Your task to perform on an android device: Open ESPN.com Image 0: 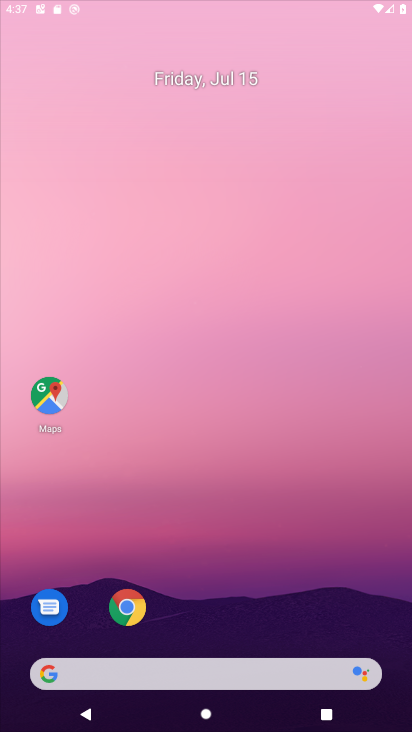
Step 0: press back button
Your task to perform on an android device: Open ESPN.com Image 1: 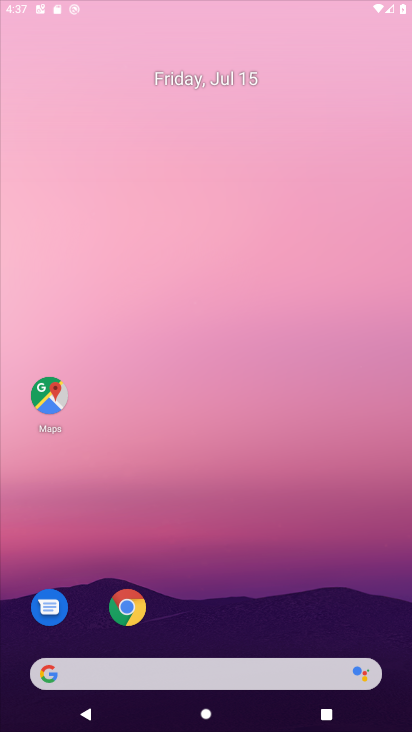
Step 1: click (132, 95)
Your task to perform on an android device: Open ESPN.com Image 2: 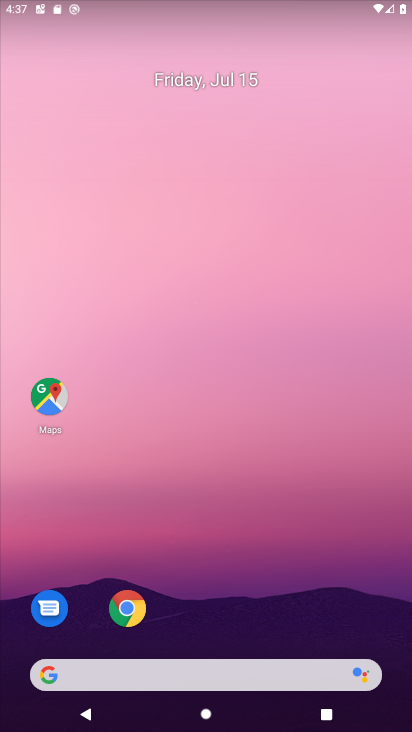
Step 2: drag from (202, 493) to (228, 51)
Your task to perform on an android device: Open ESPN.com Image 3: 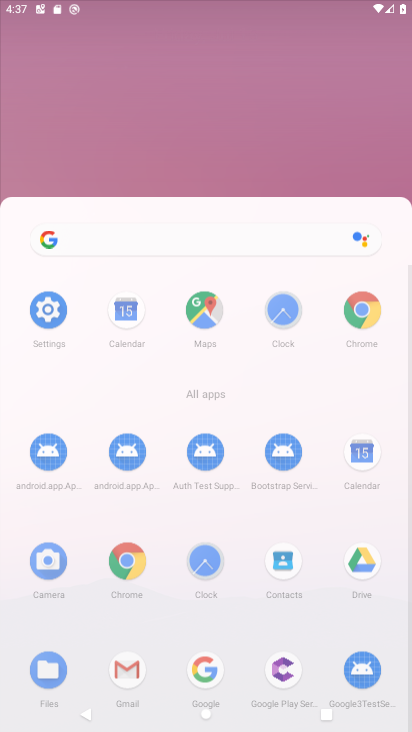
Step 3: drag from (225, 330) to (228, 70)
Your task to perform on an android device: Open ESPN.com Image 4: 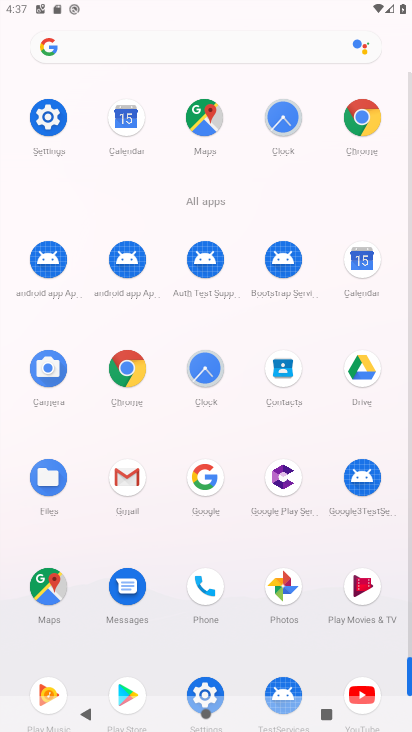
Step 4: drag from (257, 317) to (242, 64)
Your task to perform on an android device: Open ESPN.com Image 5: 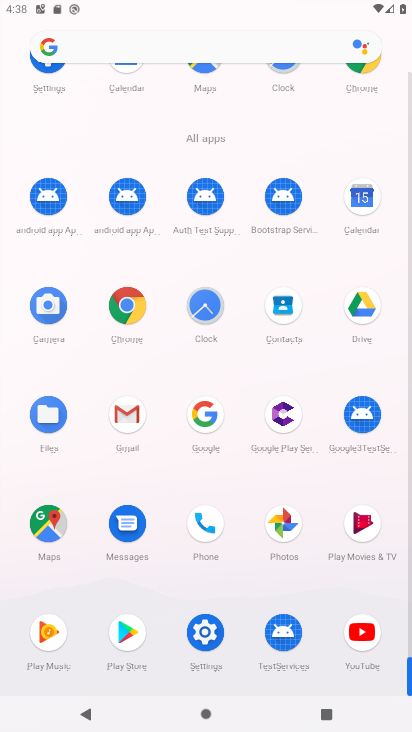
Step 5: click (208, 634)
Your task to perform on an android device: Open ESPN.com Image 6: 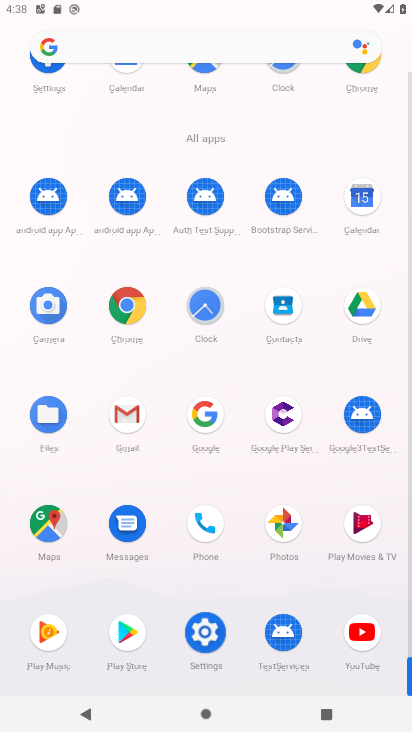
Step 6: click (206, 637)
Your task to perform on an android device: Open ESPN.com Image 7: 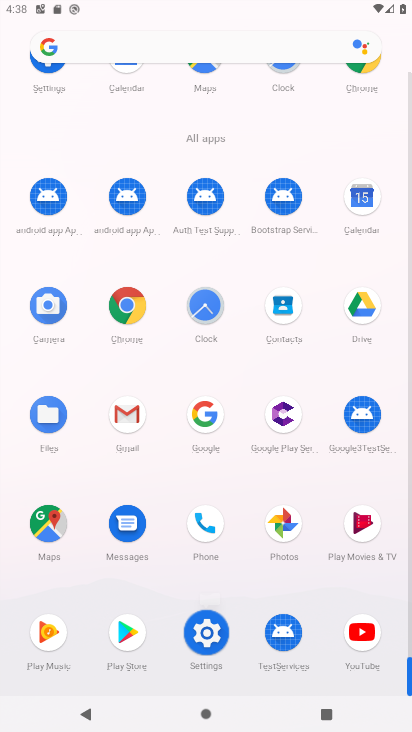
Step 7: click (206, 637)
Your task to perform on an android device: Open ESPN.com Image 8: 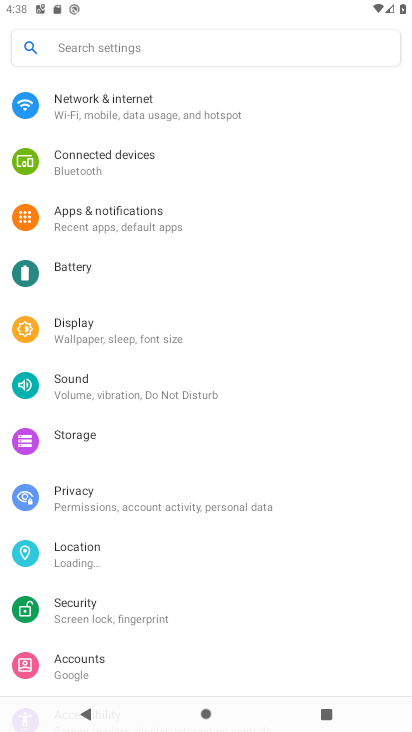
Step 8: click (200, 618)
Your task to perform on an android device: Open ESPN.com Image 9: 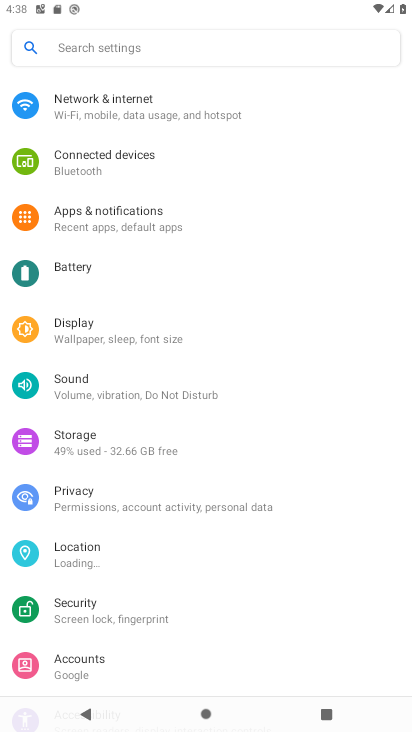
Step 9: click (206, 626)
Your task to perform on an android device: Open ESPN.com Image 10: 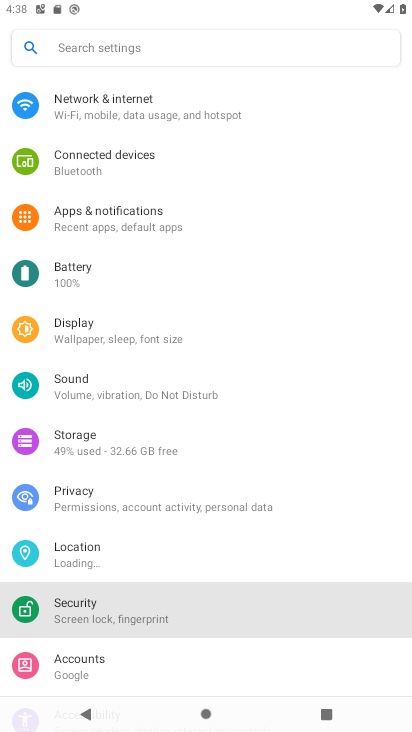
Step 10: click (208, 632)
Your task to perform on an android device: Open ESPN.com Image 11: 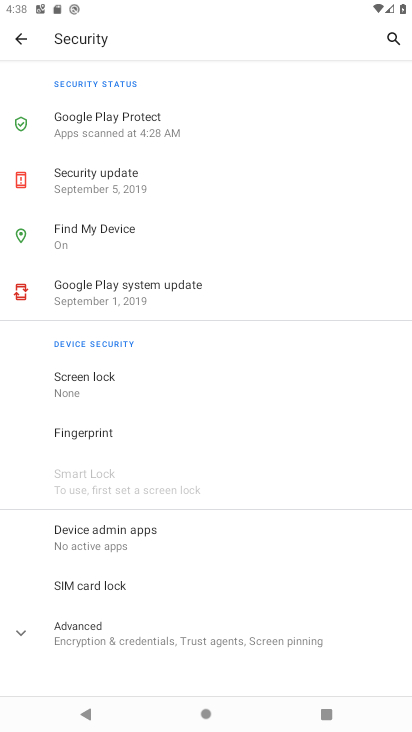
Step 11: click (27, 38)
Your task to perform on an android device: Open ESPN.com Image 12: 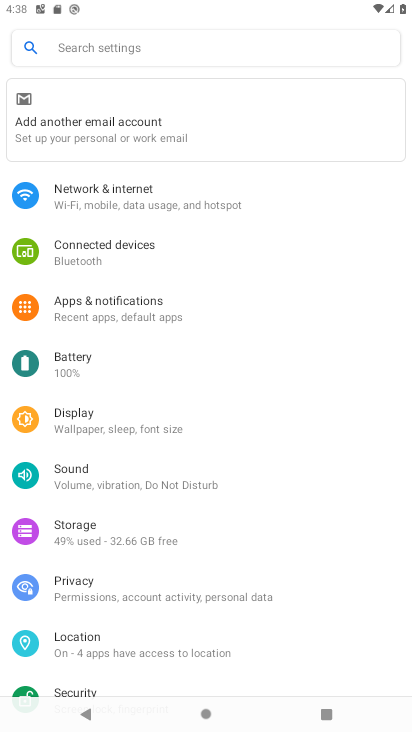
Step 12: drag from (136, 463) to (132, 150)
Your task to perform on an android device: Open ESPN.com Image 13: 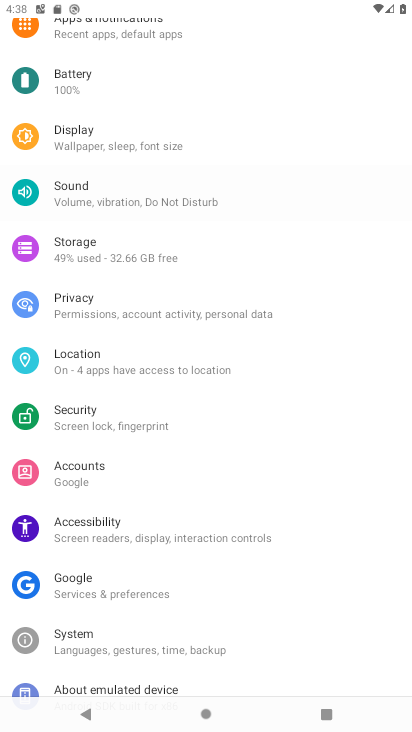
Step 13: drag from (194, 461) to (194, 247)
Your task to perform on an android device: Open ESPN.com Image 14: 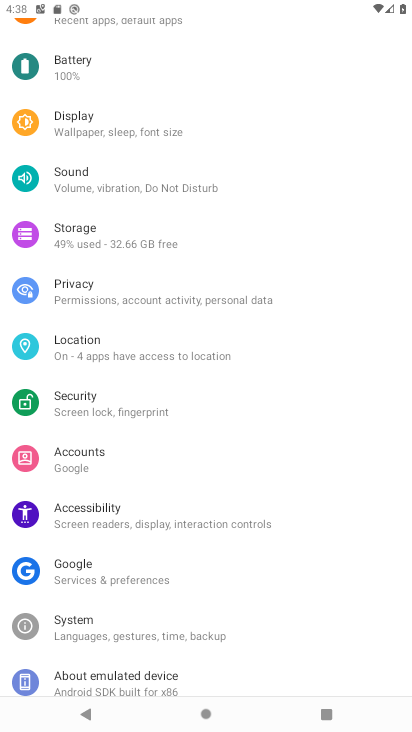
Step 14: press home button
Your task to perform on an android device: Open ESPN.com Image 15: 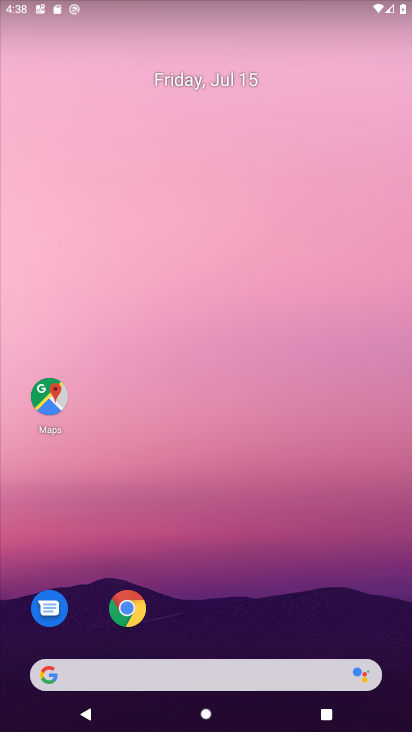
Step 15: drag from (261, 520) to (249, 143)
Your task to perform on an android device: Open ESPN.com Image 16: 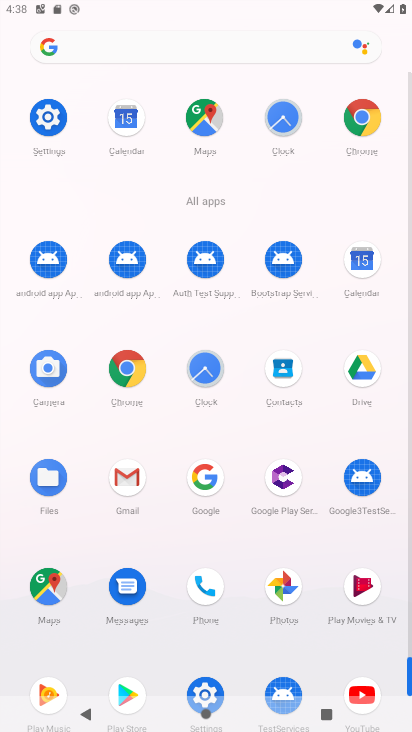
Step 16: click (367, 121)
Your task to perform on an android device: Open ESPN.com Image 17: 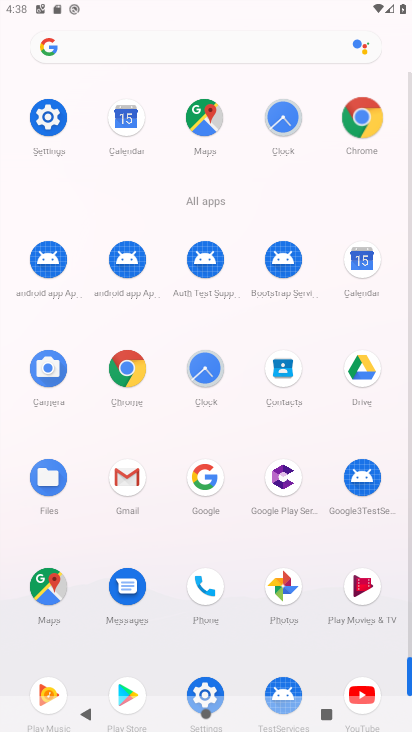
Step 17: click (367, 121)
Your task to perform on an android device: Open ESPN.com Image 18: 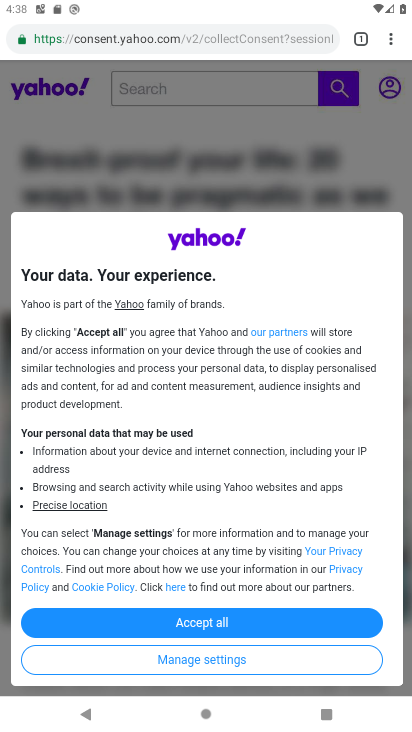
Step 18: drag from (385, 42) to (236, 69)
Your task to perform on an android device: Open ESPN.com Image 19: 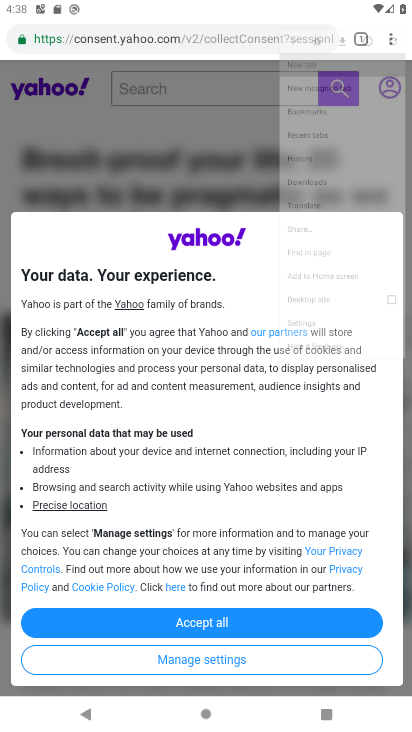
Step 19: click (236, 69)
Your task to perform on an android device: Open ESPN.com Image 20: 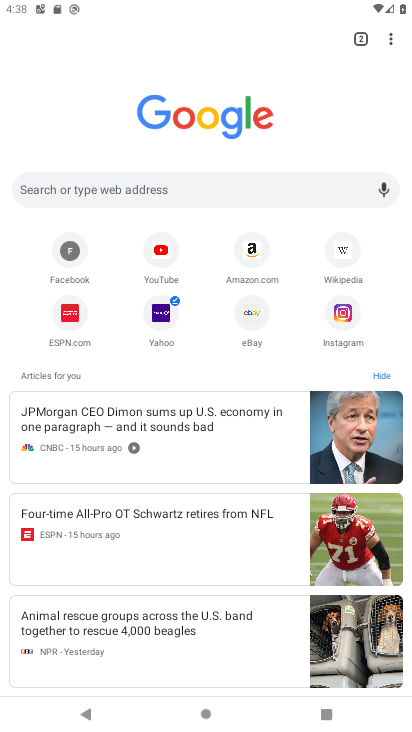
Step 20: click (66, 306)
Your task to perform on an android device: Open ESPN.com Image 21: 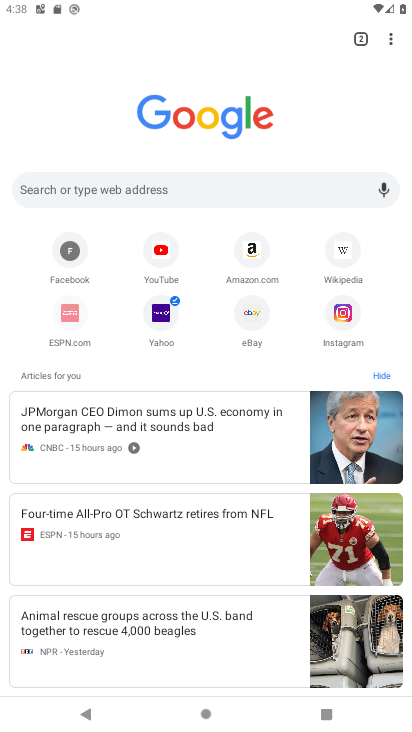
Step 21: click (71, 302)
Your task to perform on an android device: Open ESPN.com Image 22: 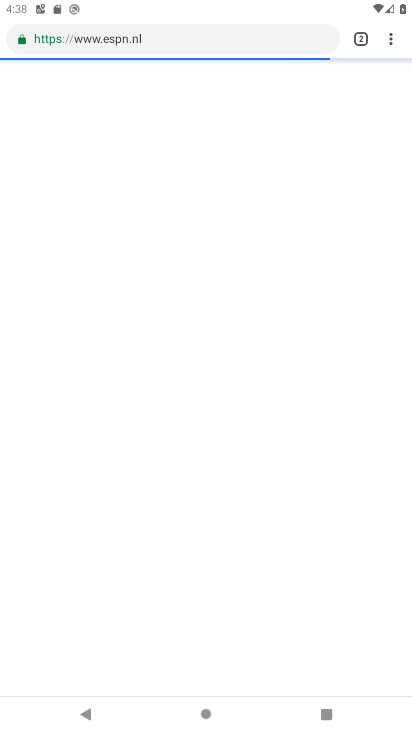
Step 22: task complete